Your task to perform on an android device: Open Google Chrome and open the bookmarks view Image 0: 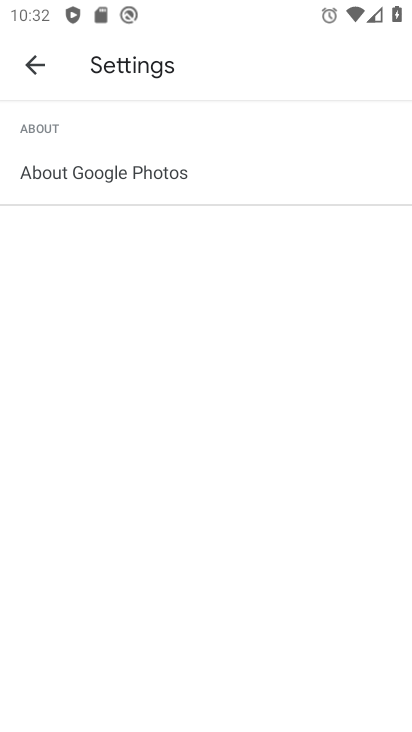
Step 0: press home button
Your task to perform on an android device: Open Google Chrome and open the bookmarks view Image 1: 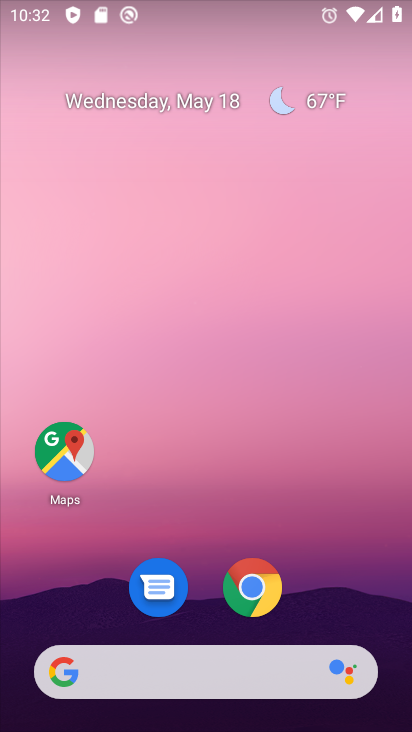
Step 1: click (256, 584)
Your task to perform on an android device: Open Google Chrome and open the bookmarks view Image 2: 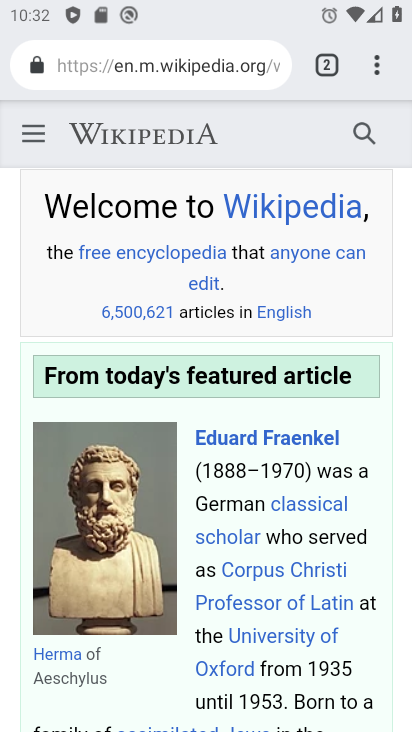
Step 2: click (378, 72)
Your task to perform on an android device: Open Google Chrome and open the bookmarks view Image 3: 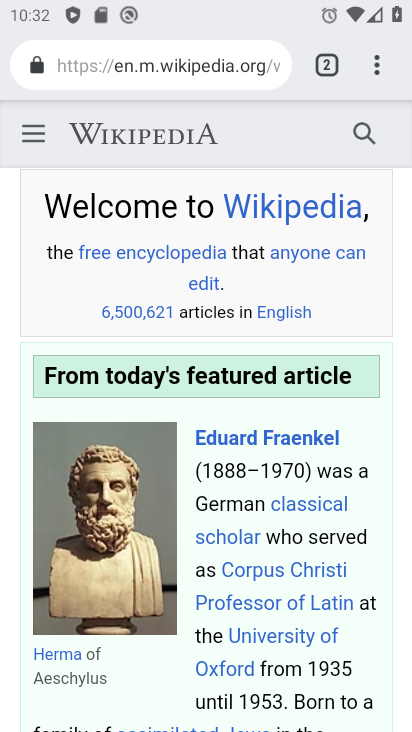
Step 3: click (378, 72)
Your task to perform on an android device: Open Google Chrome and open the bookmarks view Image 4: 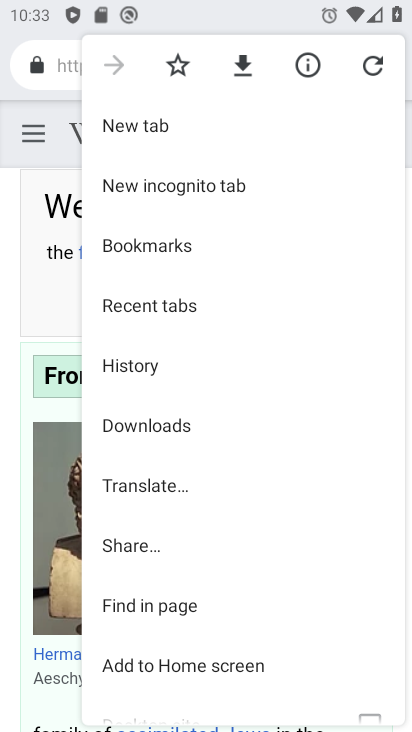
Step 4: click (150, 245)
Your task to perform on an android device: Open Google Chrome and open the bookmarks view Image 5: 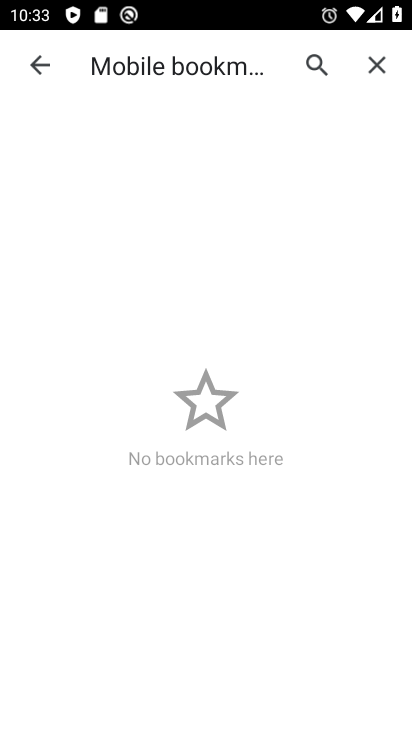
Step 5: task complete